Your task to perform on an android device: add a contact Image 0: 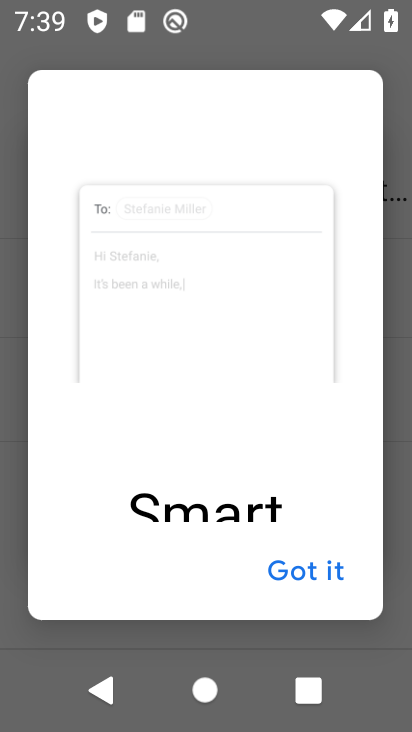
Step 0: press home button
Your task to perform on an android device: add a contact Image 1: 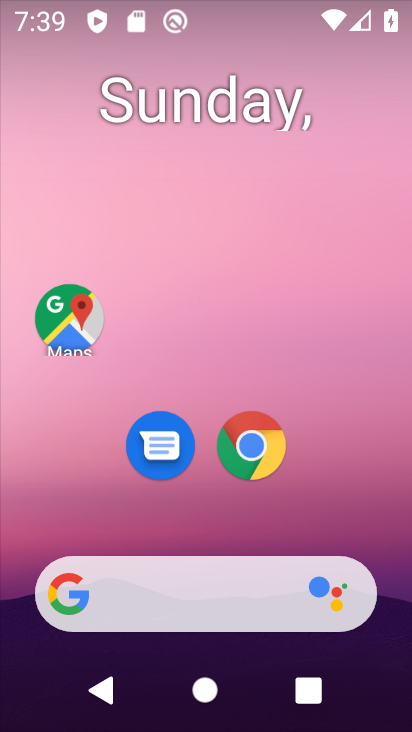
Step 1: drag from (350, 501) to (225, 30)
Your task to perform on an android device: add a contact Image 2: 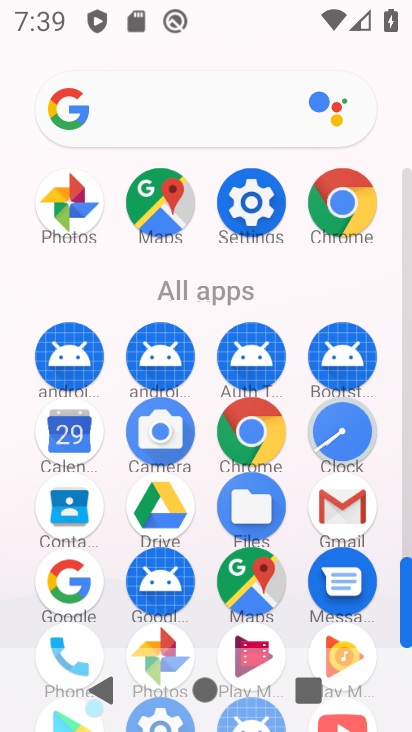
Step 2: drag from (4, 522) to (1, 195)
Your task to perform on an android device: add a contact Image 3: 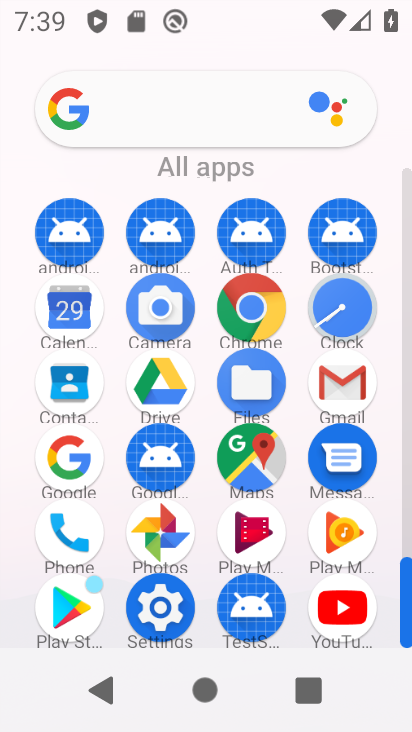
Step 3: click (67, 377)
Your task to perform on an android device: add a contact Image 4: 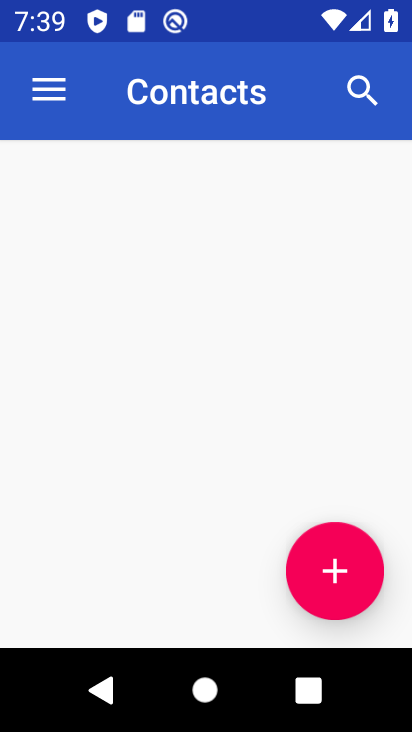
Step 4: click (328, 558)
Your task to perform on an android device: add a contact Image 5: 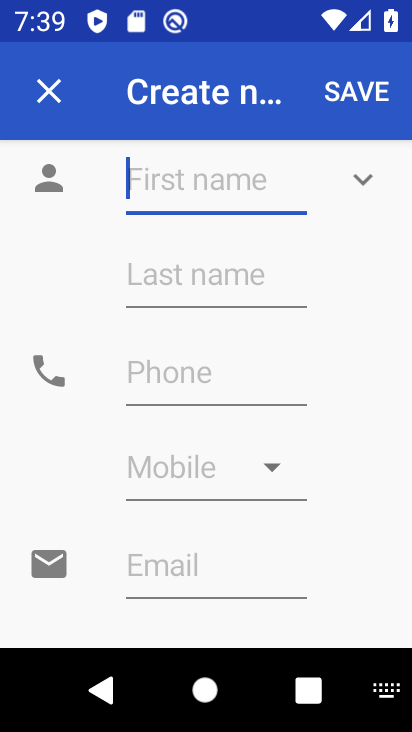
Step 5: type "Sdfgh"
Your task to perform on an android device: add a contact Image 6: 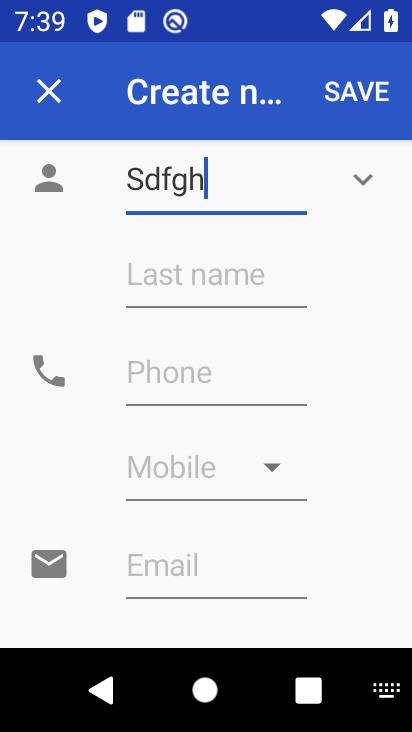
Step 6: type ""
Your task to perform on an android device: add a contact Image 7: 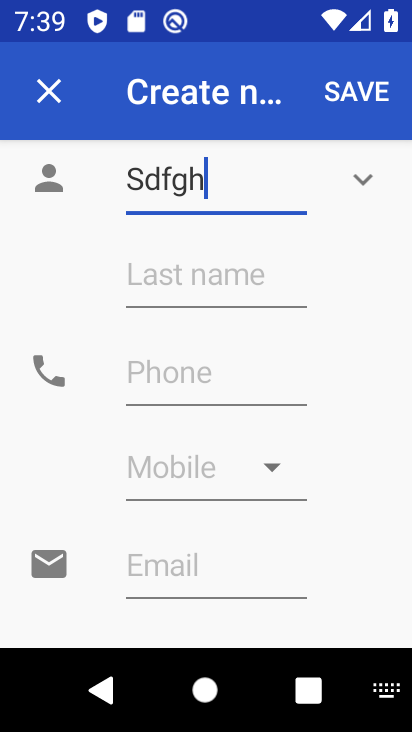
Step 7: click (162, 369)
Your task to perform on an android device: add a contact Image 8: 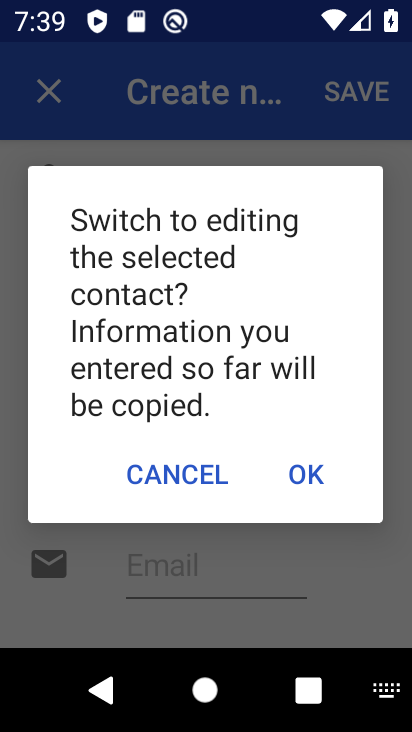
Step 8: click (313, 469)
Your task to perform on an android device: add a contact Image 9: 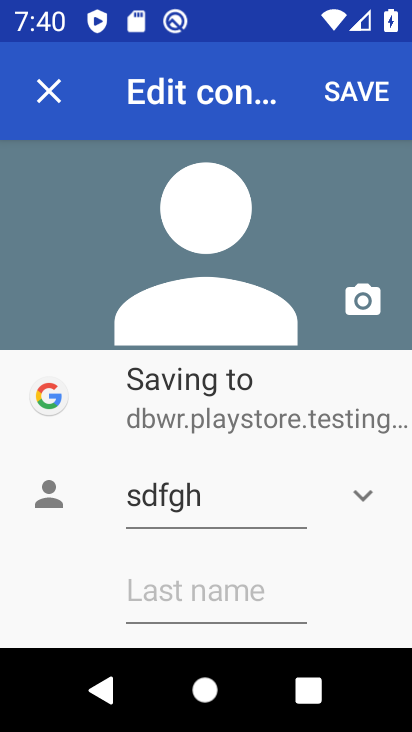
Step 9: click (377, 92)
Your task to perform on an android device: add a contact Image 10: 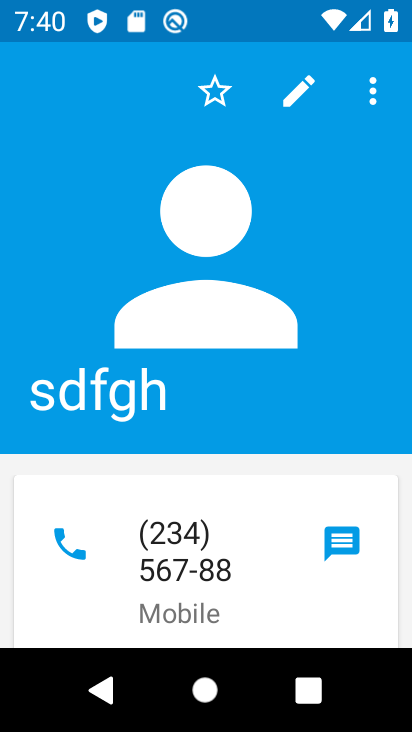
Step 10: task complete